Your task to perform on an android device: change the clock display to show seconds Image 0: 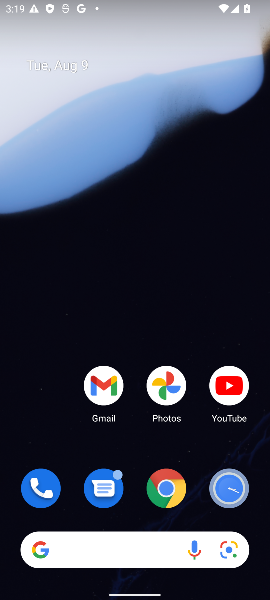
Step 0: click (229, 492)
Your task to perform on an android device: change the clock display to show seconds Image 1: 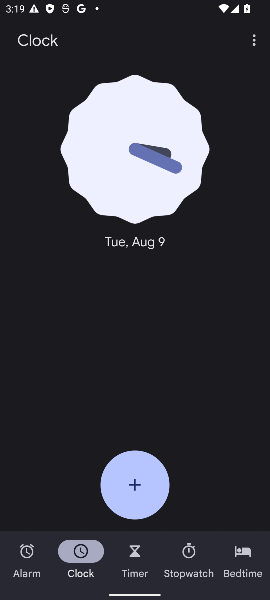
Step 1: click (257, 51)
Your task to perform on an android device: change the clock display to show seconds Image 2: 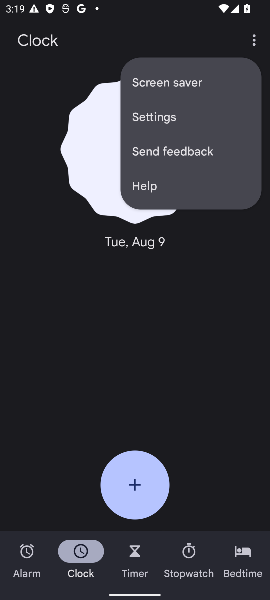
Step 2: click (206, 121)
Your task to perform on an android device: change the clock display to show seconds Image 3: 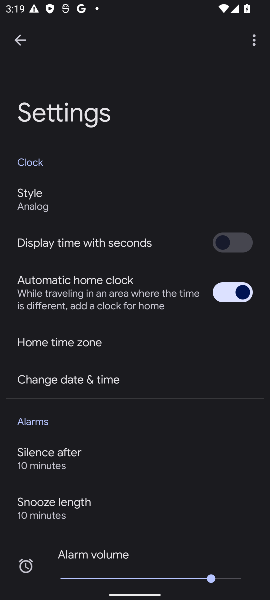
Step 3: click (243, 236)
Your task to perform on an android device: change the clock display to show seconds Image 4: 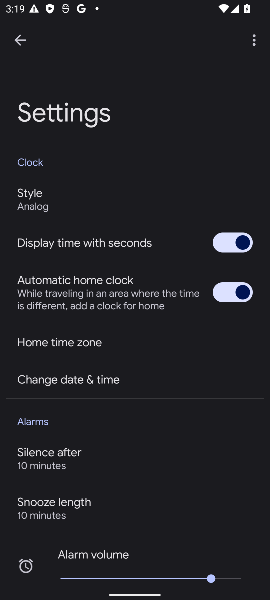
Step 4: task complete